Your task to perform on an android device: install app "Adobe Acrobat Reader" Image 0: 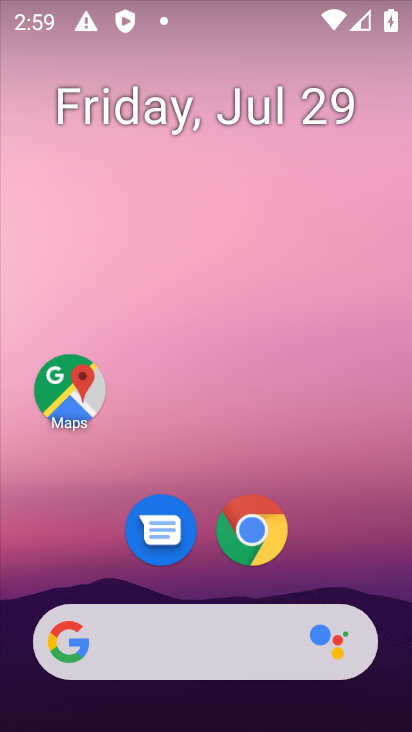
Step 0: drag from (341, 590) to (304, 42)
Your task to perform on an android device: install app "Adobe Acrobat Reader" Image 1: 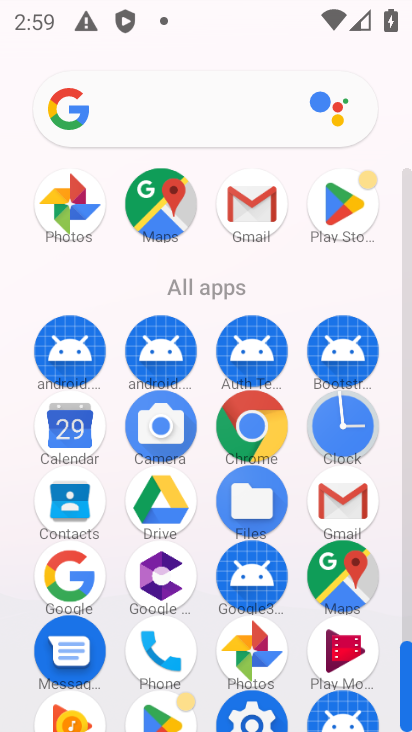
Step 1: click (341, 204)
Your task to perform on an android device: install app "Adobe Acrobat Reader" Image 2: 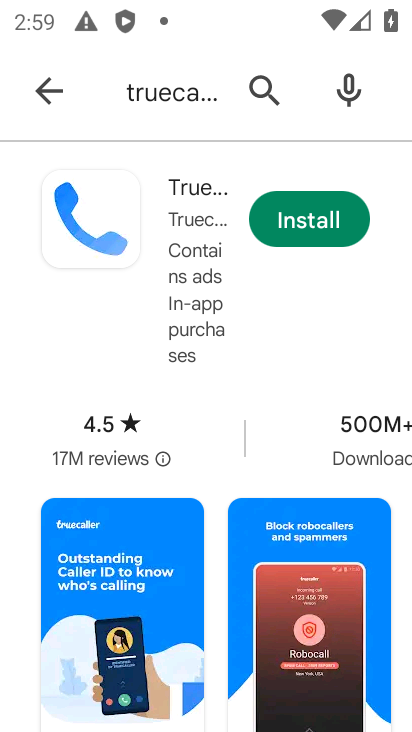
Step 2: click (261, 92)
Your task to perform on an android device: install app "Adobe Acrobat Reader" Image 3: 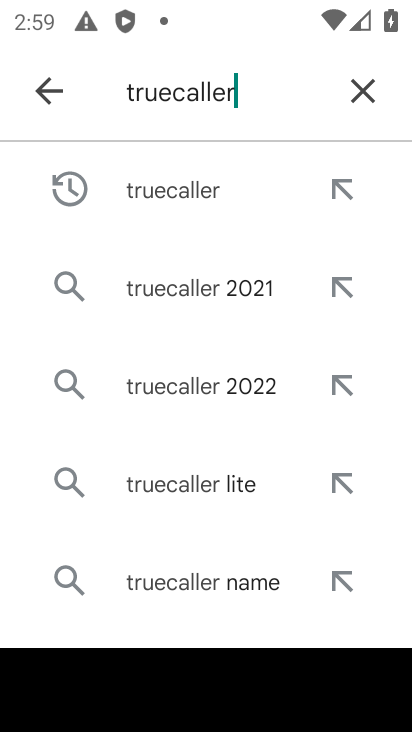
Step 3: click (357, 92)
Your task to perform on an android device: install app "Adobe Acrobat Reader" Image 4: 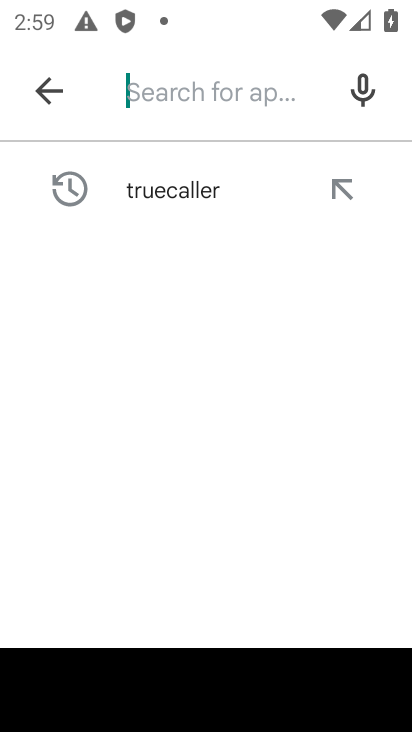
Step 4: click (218, 85)
Your task to perform on an android device: install app "Adobe Acrobat Reader" Image 5: 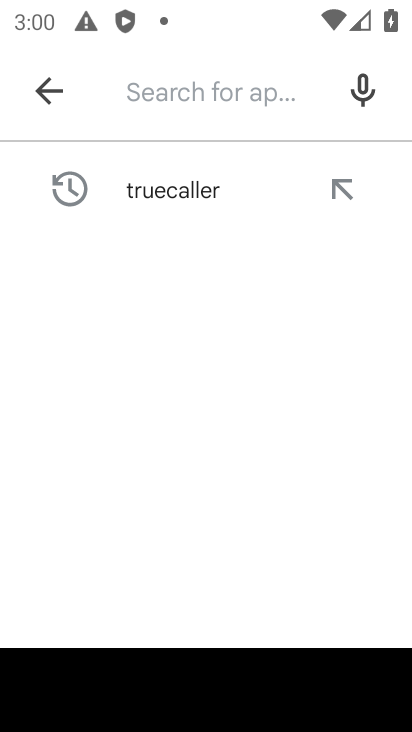
Step 5: type "Adobe Acrobat Reader"
Your task to perform on an android device: install app "Adobe Acrobat Reader" Image 6: 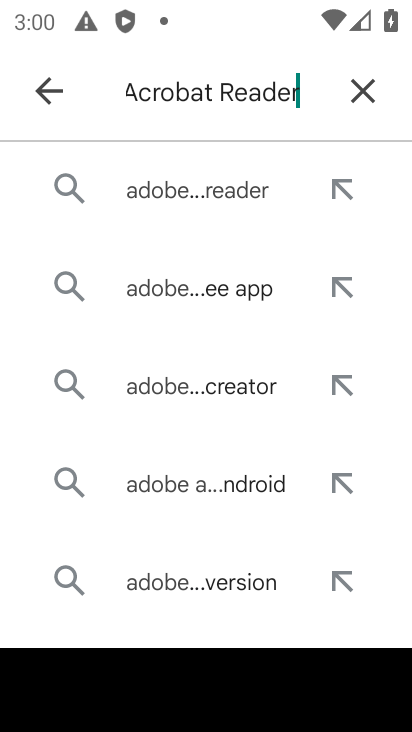
Step 6: click (183, 199)
Your task to perform on an android device: install app "Adobe Acrobat Reader" Image 7: 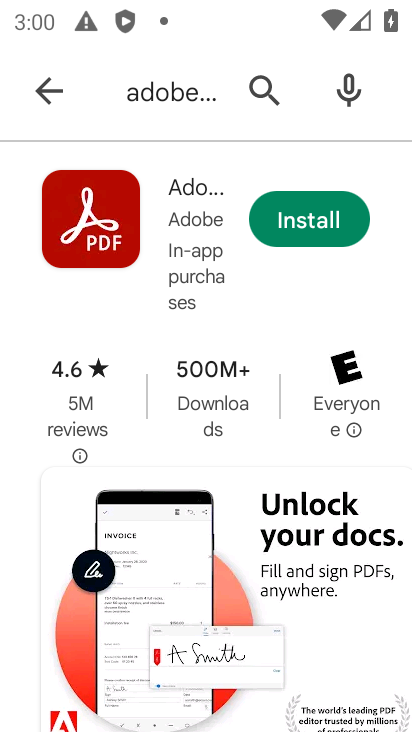
Step 7: click (279, 212)
Your task to perform on an android device: install app "Adobe Acrobat Reader" Image 8: 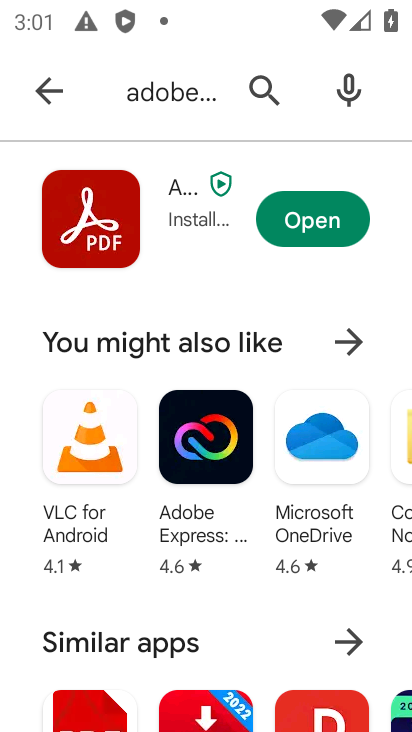
Step 8: task complete